Your task to perform on an android device: Open Chrome and go to settings Image 0: 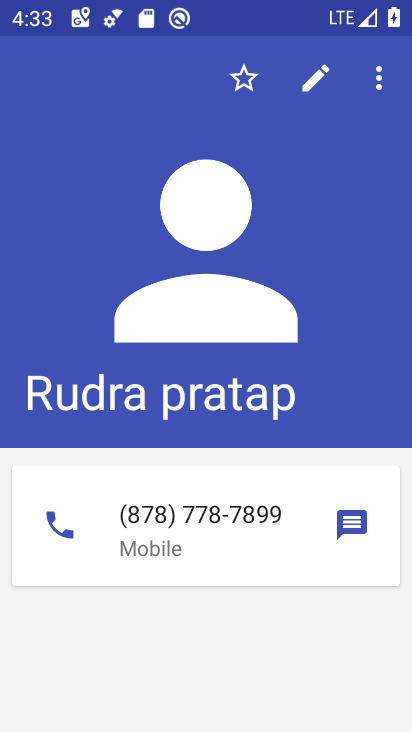
Step 0: press home button
Your task to perform on an android device: Open Chrome and go to settings Image 1: 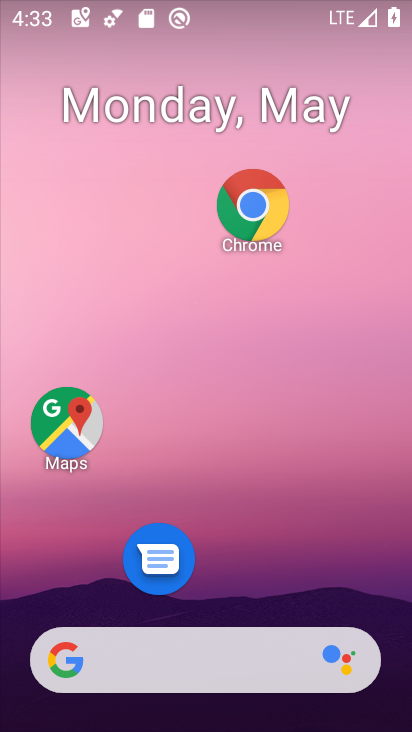
Step 1: drag from (239, 547) to (399, 551)
Your task to perform on an android device: Open Chrome and go to settings Image 2: 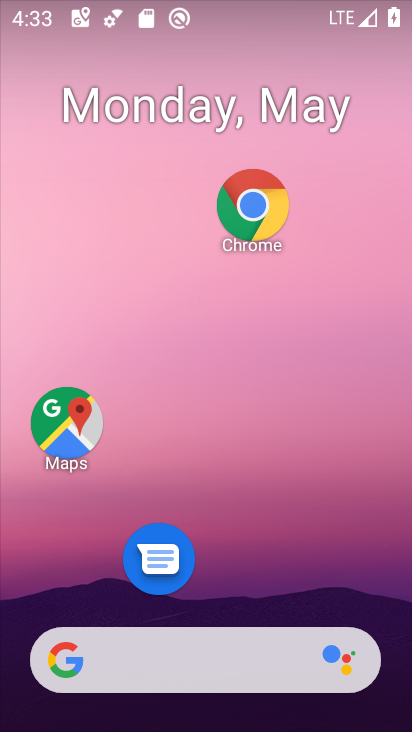
Step 2: click (251, 438)
Your task to perform on an android device: Open Chrome and go to settings Image 3: 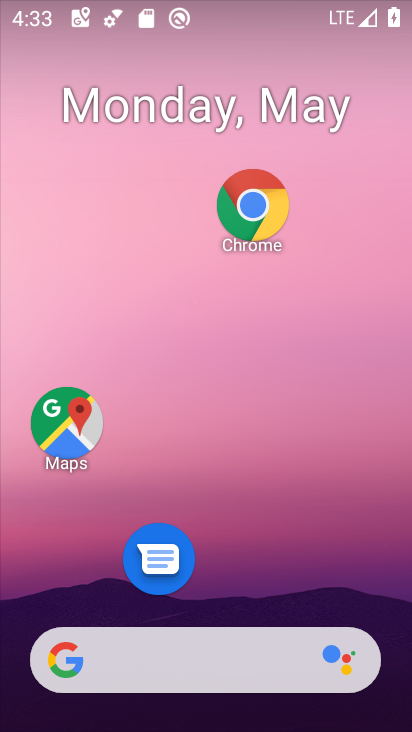
Step 3: click (253, 205)
Your task to perform on an android device: Open Chrome and go to settings Image 4: 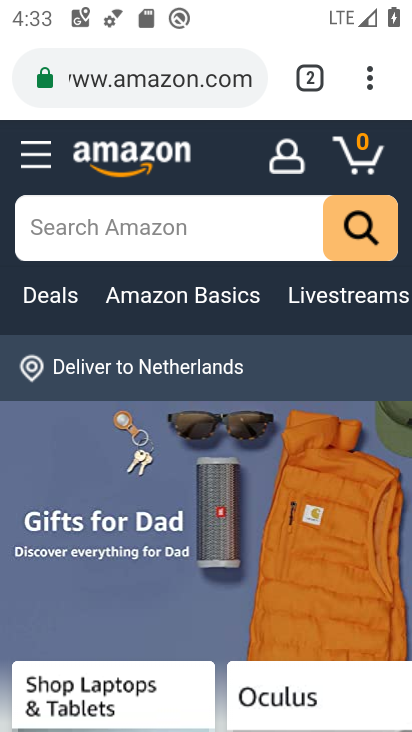
Step 4: click (370, 78)
Your task to perform on an android device: Open Chrome and go to settings Image 5: 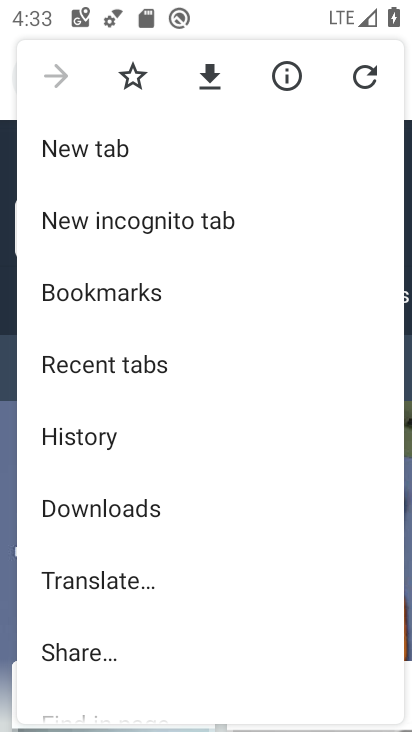
Step 5: click (146, 303)
Your task to perform on an android device: Open Chrome and go to settings Image 6: 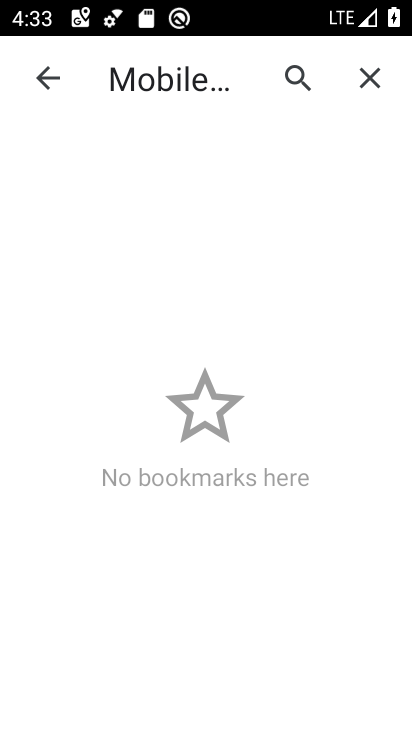
Step 6: click (46, 83)
Your task to perform on an android device: Open Chrome and go to settings Image 7: 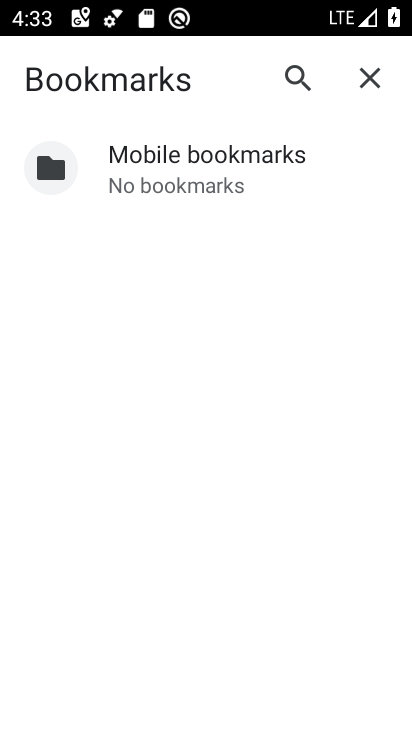
Step 7: click (366, 85)
Your task to perform on an android device: Open Chrome and go to settings Image 8: 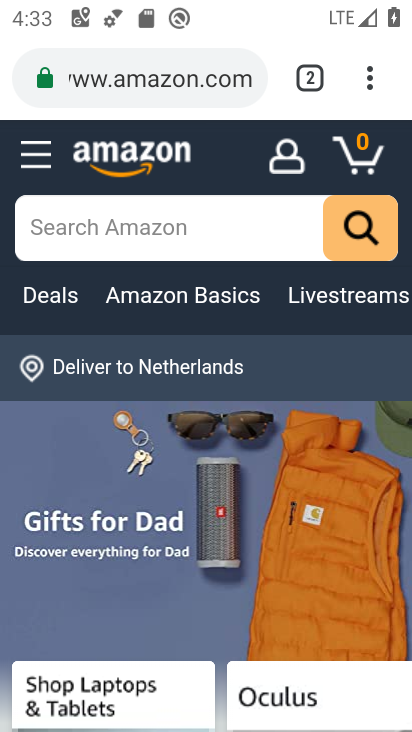
Step 8: click (369, 85)
Your task to perform on an android device: Open Chrome and go to settings Image 9: 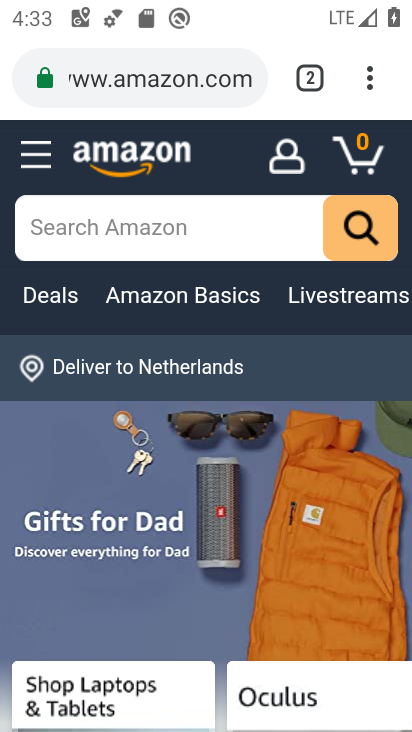
Step 9: click (368, 82)
Your task to perform on an android device: Open Chrome and go to settings Image 10: 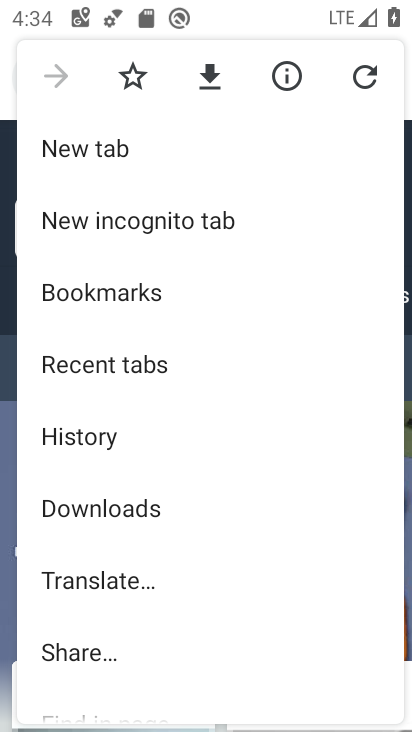
Step 10: drag from (116, 607) to (159, 311)
Your task to perform on an android device: Open Chrome and go to settings Image 11: 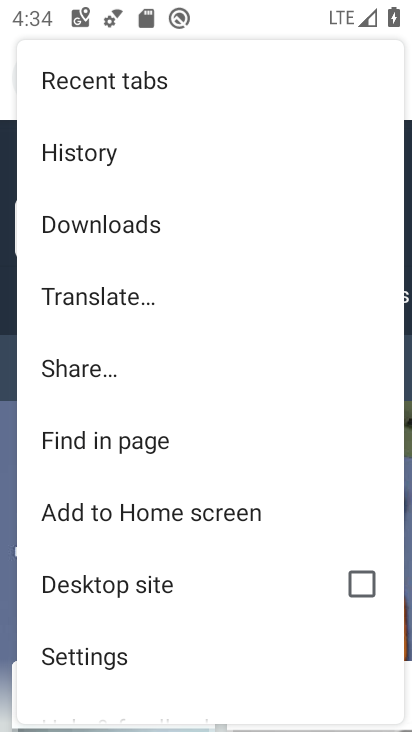
Step 11: click (76, 662)
Your task to perform on an android device: Open Chrome and go to settings Image 12: 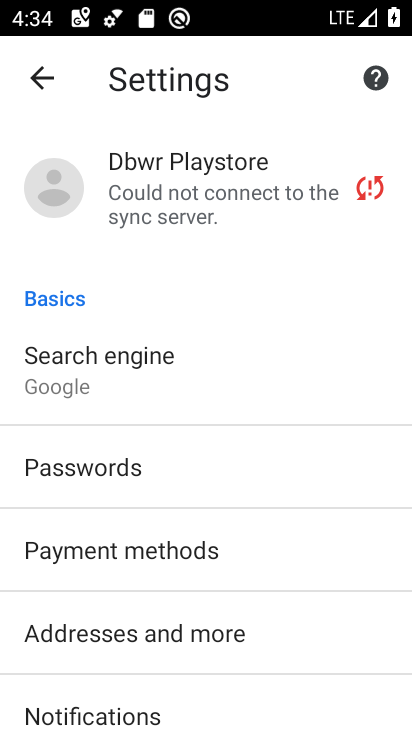
Step 12: task complete